Your task to perform on an android device: turn off airplane mode Image 0: 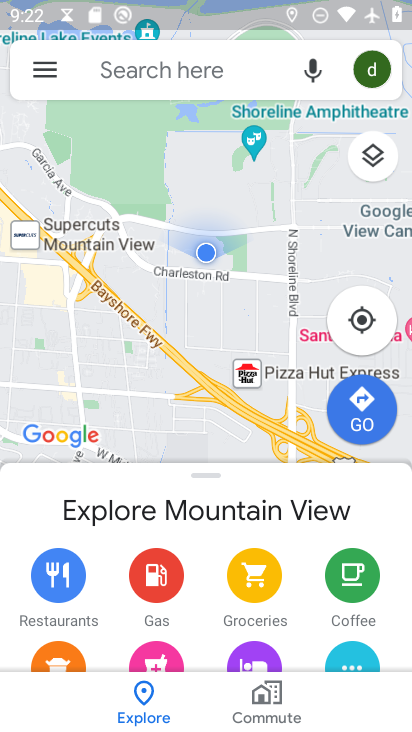
Step 0: press home button
Your task to perform on an android device: turn off airplane mode Image 1: 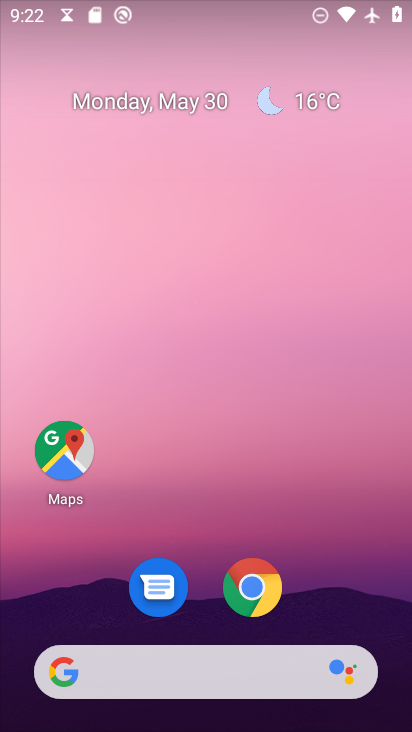
Step 1: drag from (152, 672) to (329, 59)
Your task to perform on an android device: turn off airplane mode Image 2: 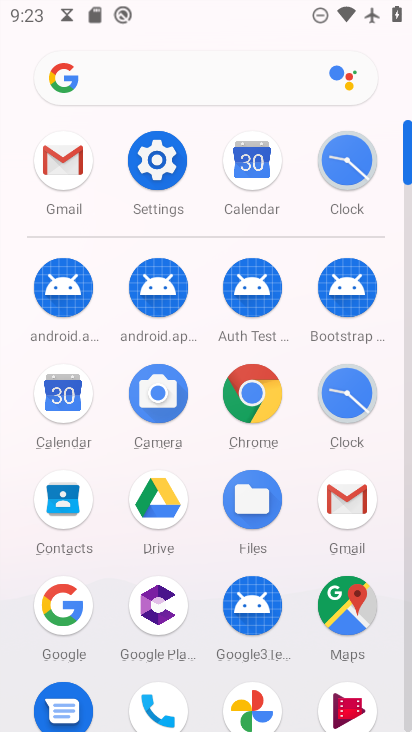
Step 2: click (155, 171)
Your task to perform on an android device: turn off airplane mode Image 3: 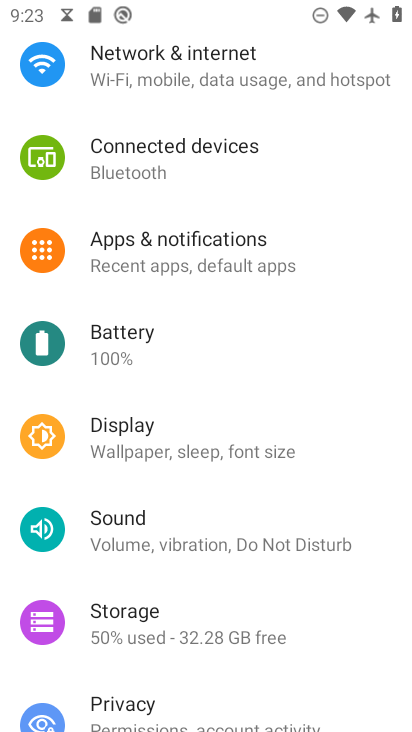
Step 3: drag from (312, 162) to (277, 489)
Your task to perform on an android device: turn off airplane mode Image 4: 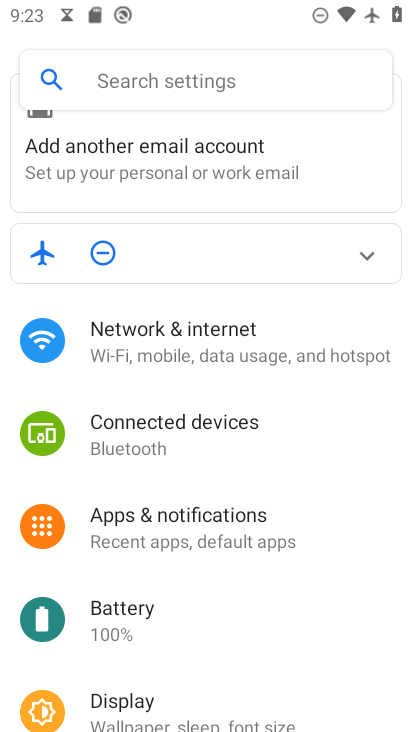
Step 4: click (223, 347)
Your task to perform on an android device: turn off airplane mode Image 5: 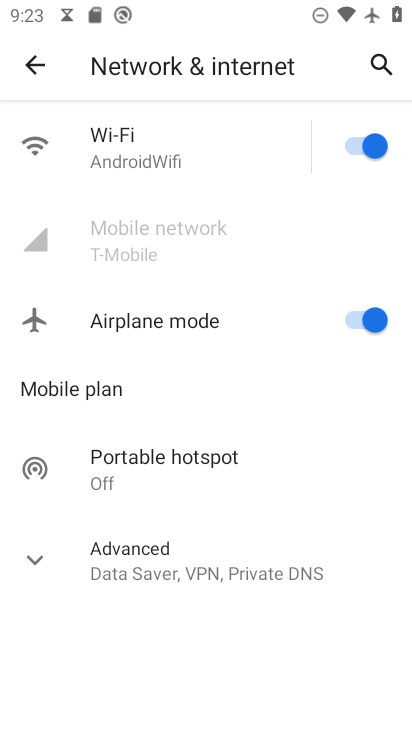
Step 5: click (356, 322)
Your task to perform on an android device: turn off airplane mode Image 6: 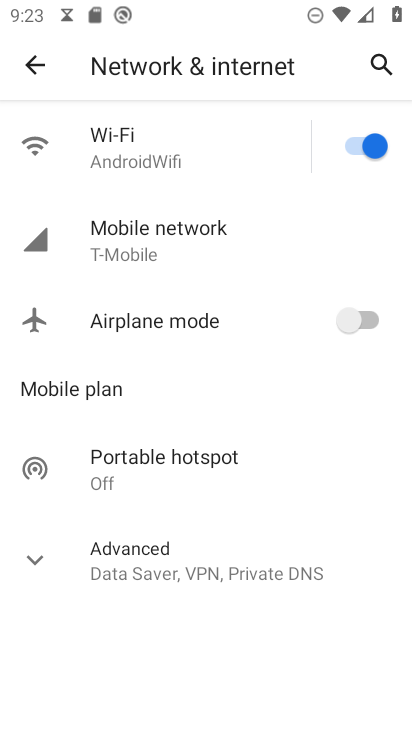
Step 6: task complete